Your task to perform on an android device: Open calendar and show me the first week of next month Image 0: 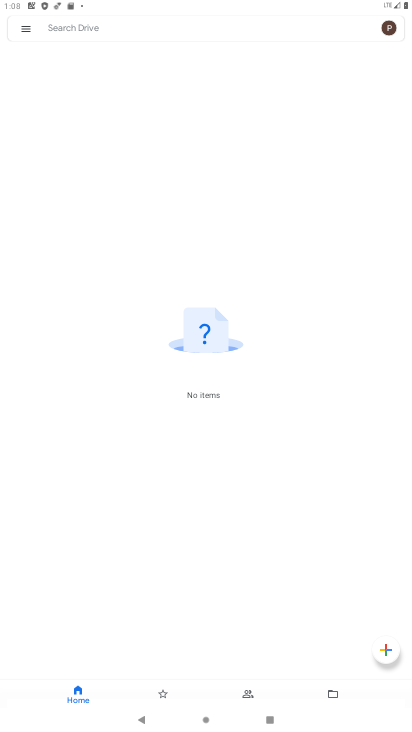
Step 0: press home button
Your task to perform on an android device: Open calendar and show me the first week of next month Image 1: 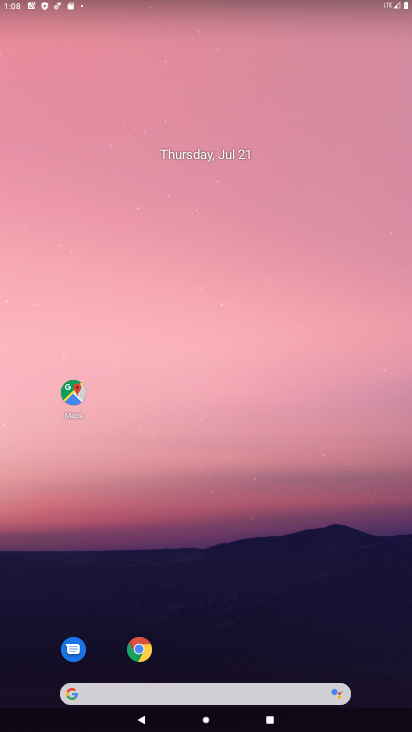
Step 1: drag from (231, 723) to (195, 277)
Your task to perform on an android device: Open calendar and show me the first week of next month Image 2: 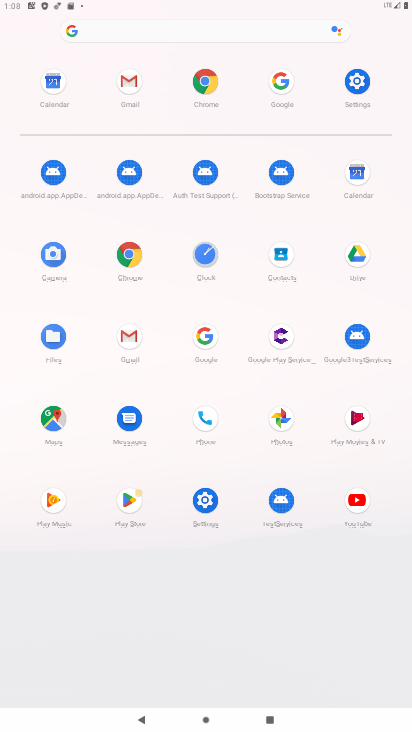
Step 2: click (356, 170)
Your task to perform on an android device: Open calendar and show me the first week of next month Image 3: 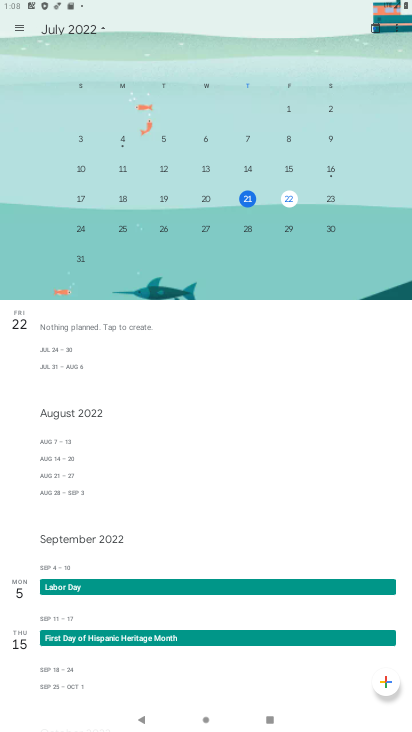
Step 3: drag from (321, 163) to (85, 147)
Your task to perform on an android device: Open calendar and show me the first week of next month Image 4: 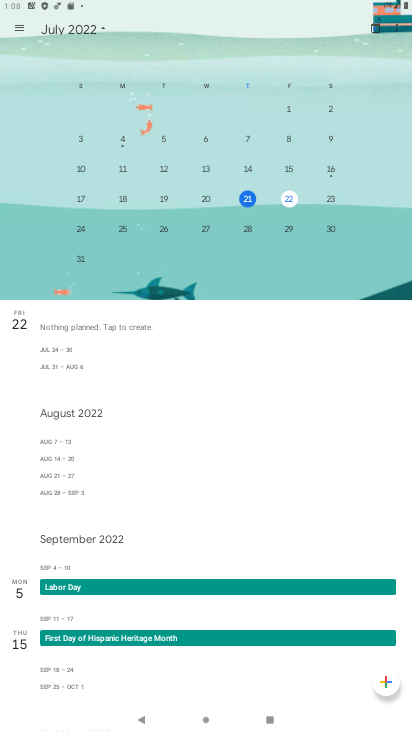
Step 4: drag from (326, 158) to (40, 150)
Your task to perform on an android device: Open calendar and show me the first week of next month Image 5: 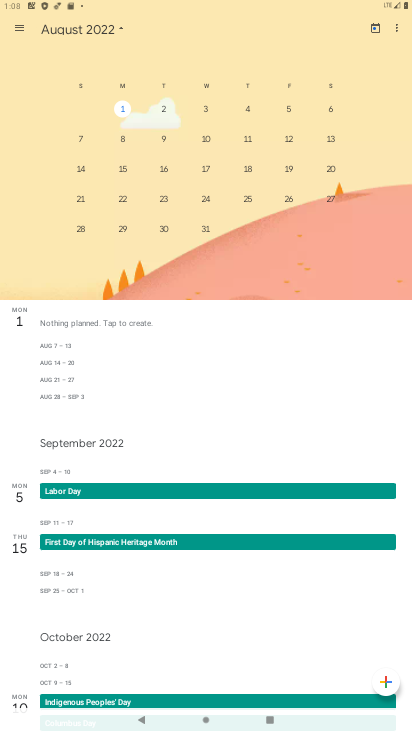
Step 5: click (124, 109)
Your task to perform on an android device: Open calendar and show me the first week of next month Image 6: 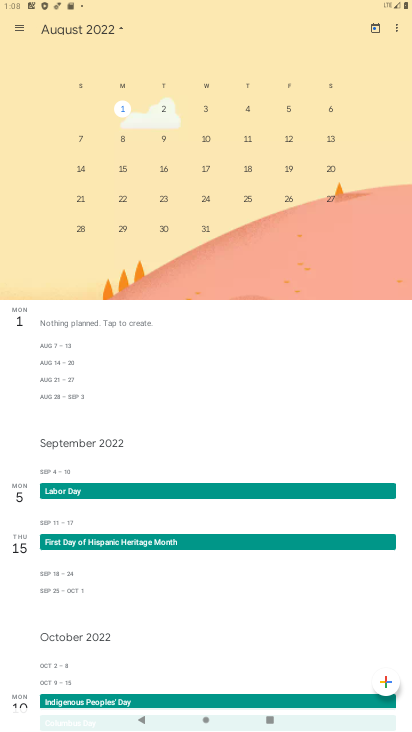
Step 6: click (16, 25)
Your task to perform on an android device: Open calendar and show me the first week of next month Image 7: 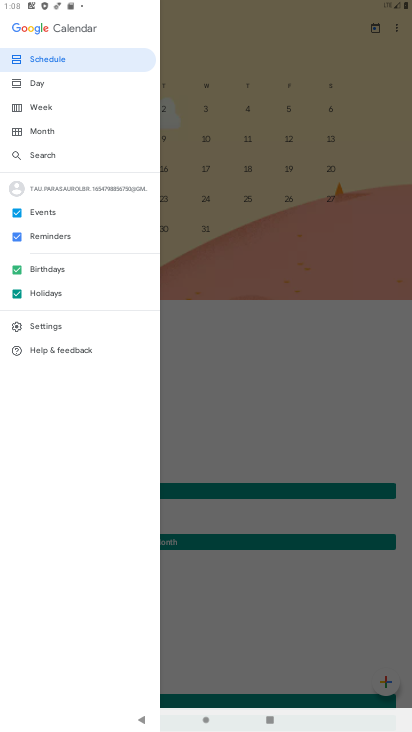
Step 7: click (39, 107)
Your task to perform on an android device: Open calendar and show me the first week of next month Image 8: 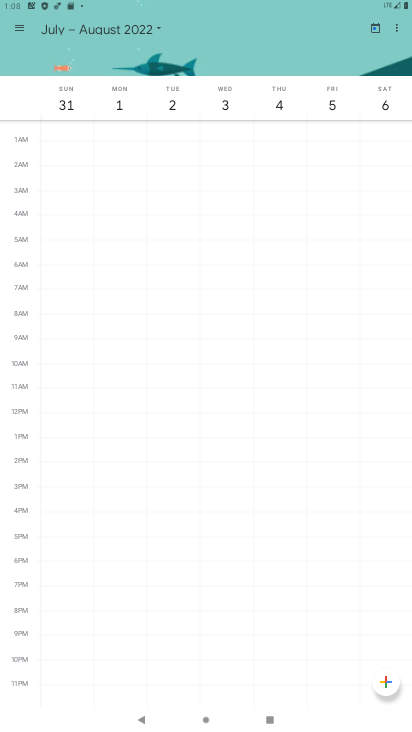
Step 8: task complete